Your task to perform on an android device: What time is it in Paris? Image 0: 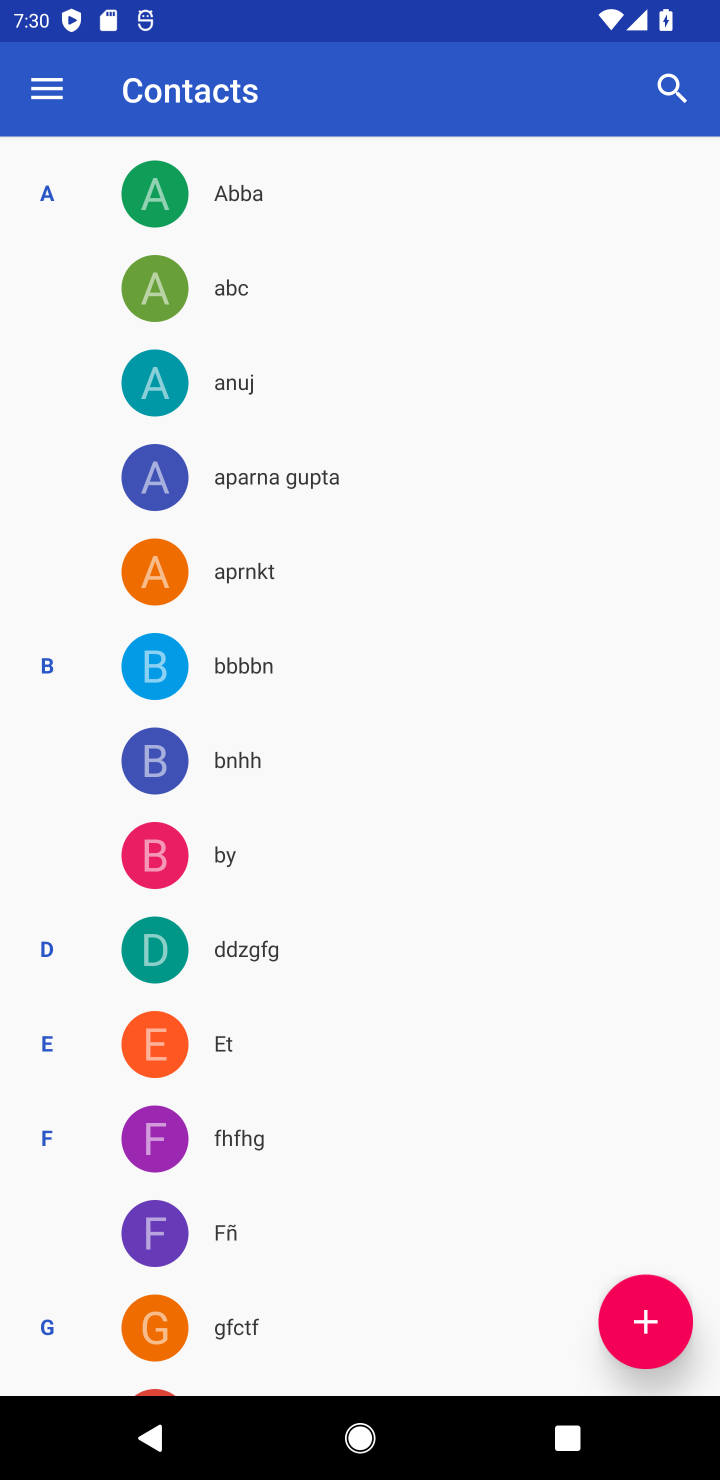
Step 0: press home button
Your task to perform on an android device: What time is it in Paris? Image 1: 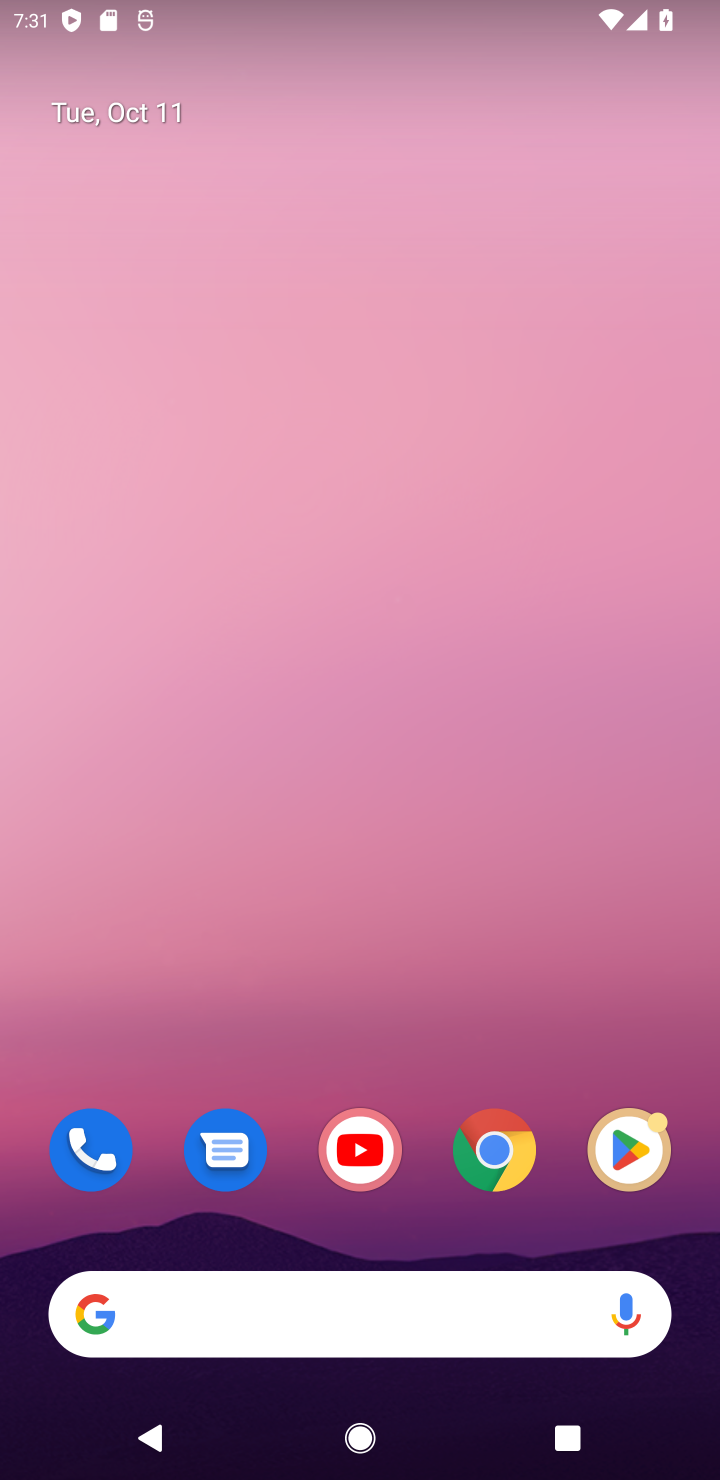
Step 1: click (482, 1139)
Your task to perform on an android device: What time is it in Paris? Image 2: 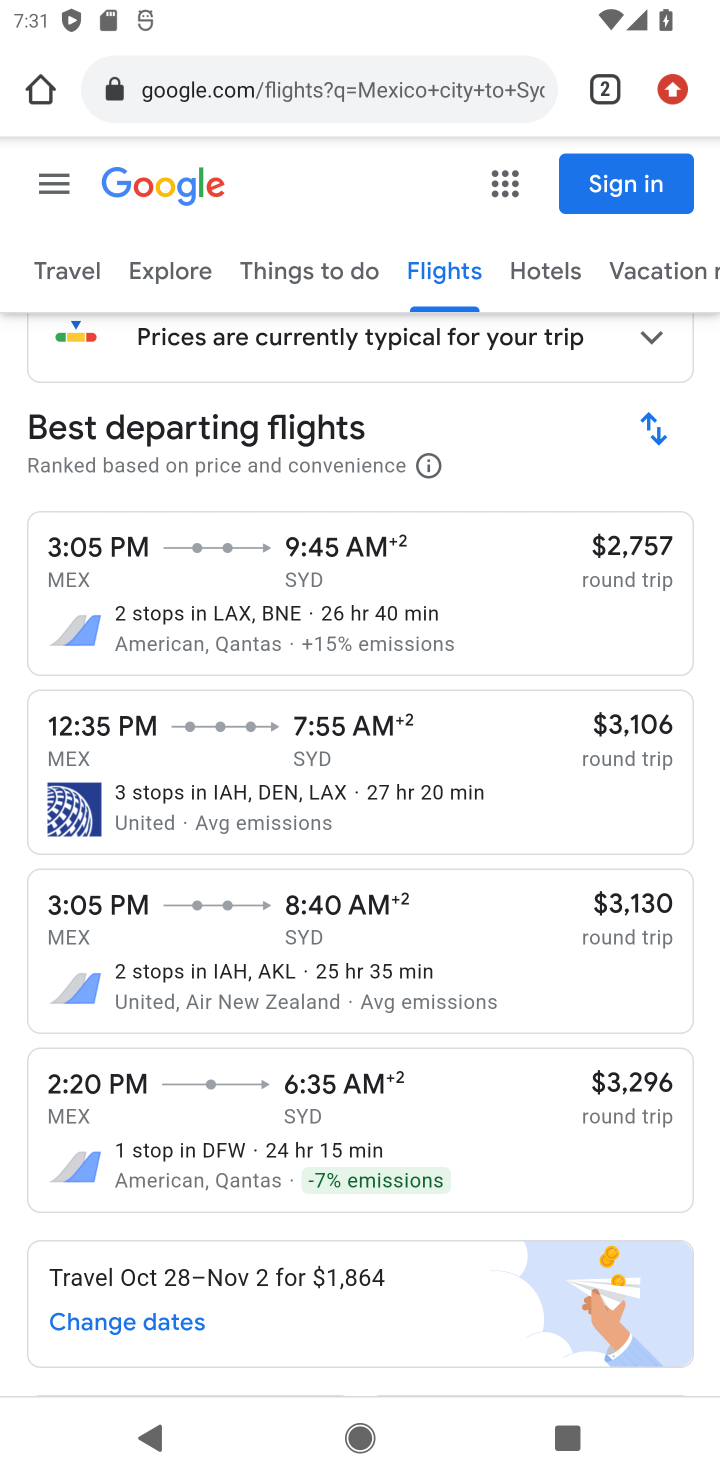
Step 2: click (289, 96)
Your task to perform on an android device: What time is it in Paris? Image 3: 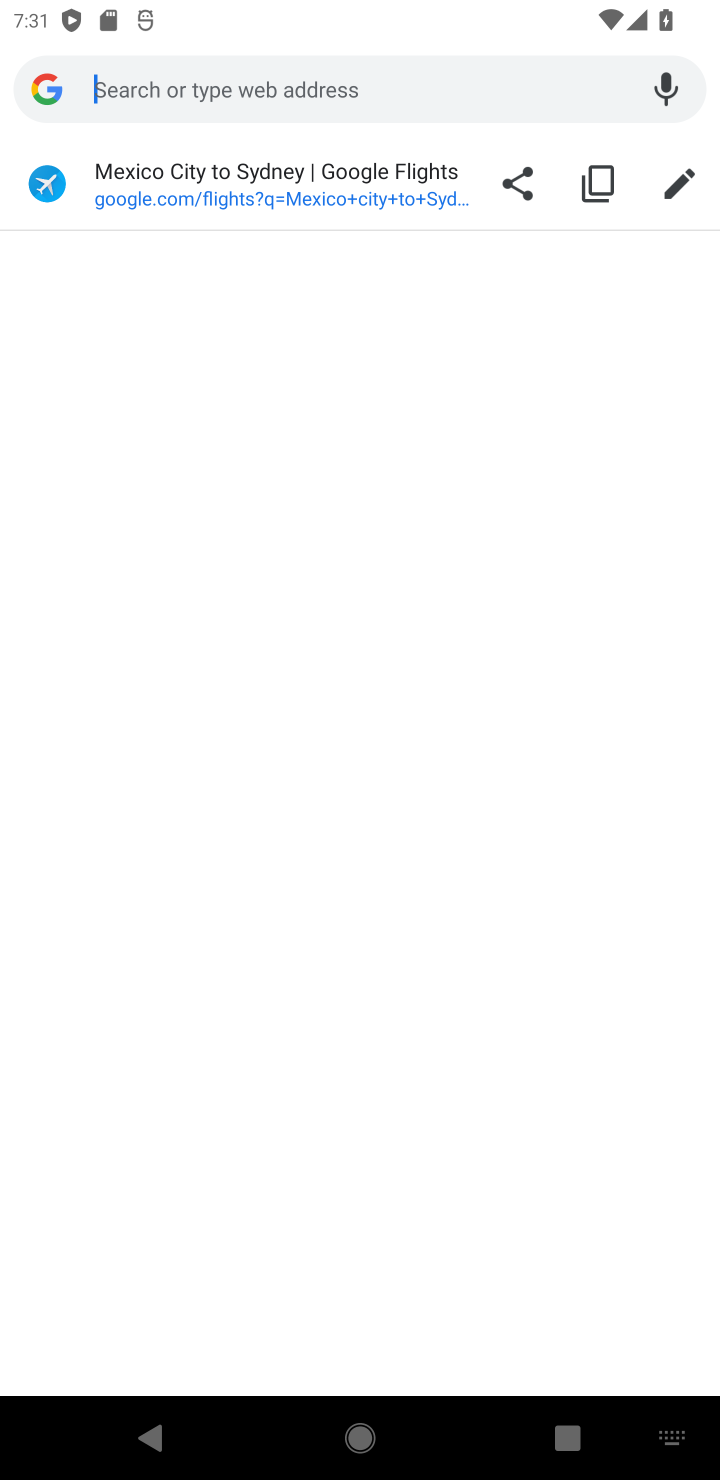
Step 3: type "time in paris"
Your task to perform on an android device: What time is it in Paris? Image 4: 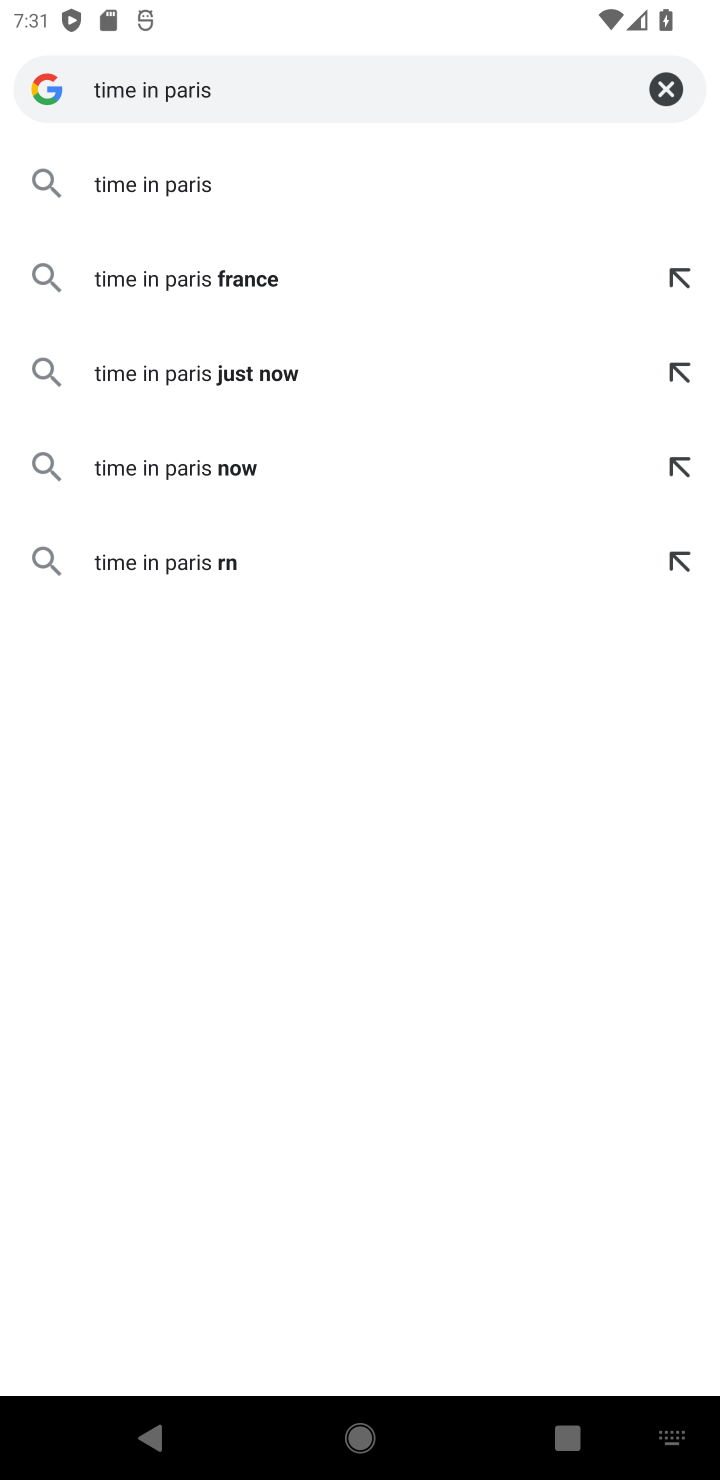
Step 4: click (87, 195)
Your task to perform on an android device: What time is it in Paris? Image 5: 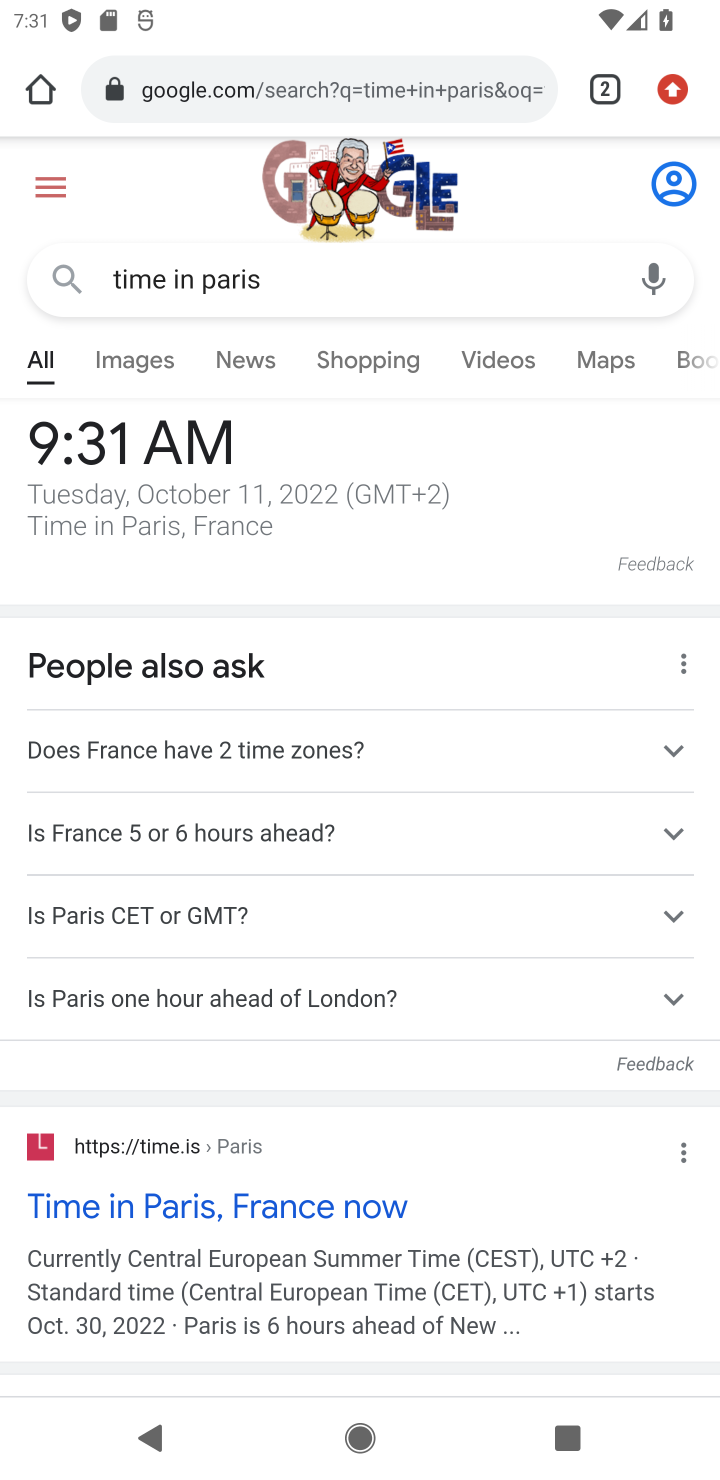
Step 5: task complete